Your task to perform on an android device: Clear the cart on costco. Image 0: 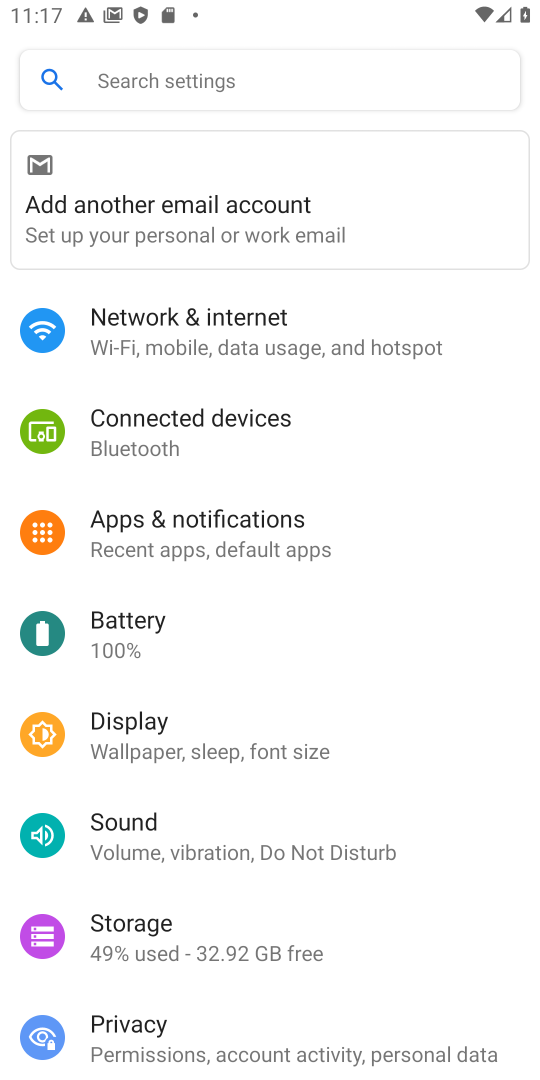
Step 0: press home button
Your task to perform on an android device: Clear the cart on costco. Image 1: 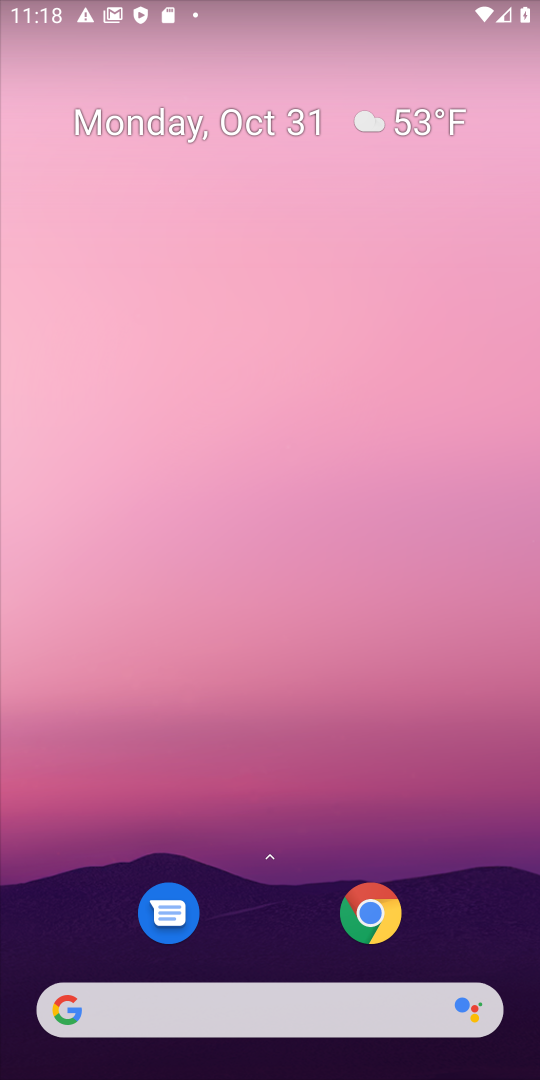
Step 1: click (334, 1028)
Your task to perform on an android device: Clear the cart on costco. Image 2: 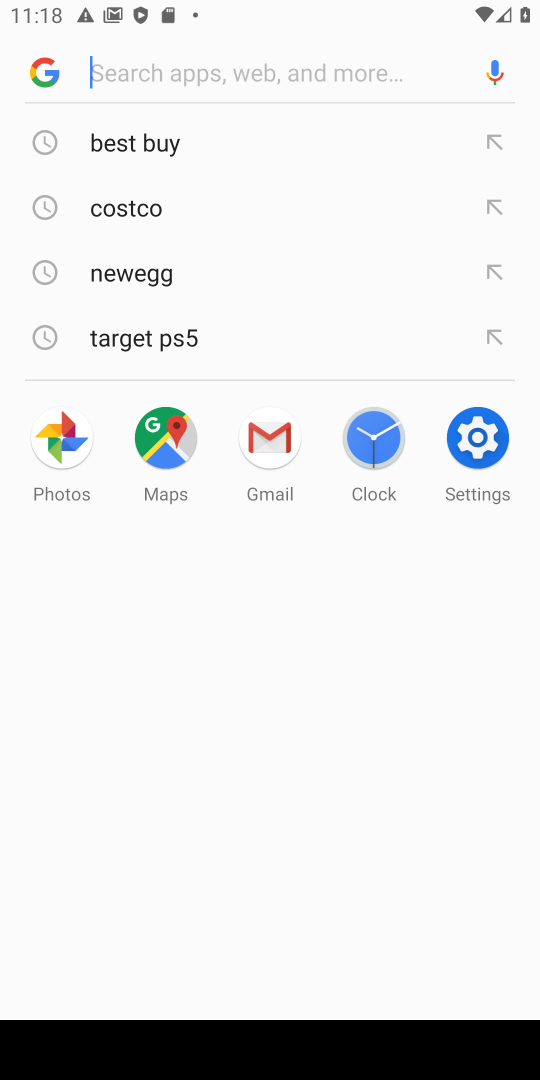
Step 2: type "costco"
Your task to perform on an android device: Clear the cart on costco. Image 3: 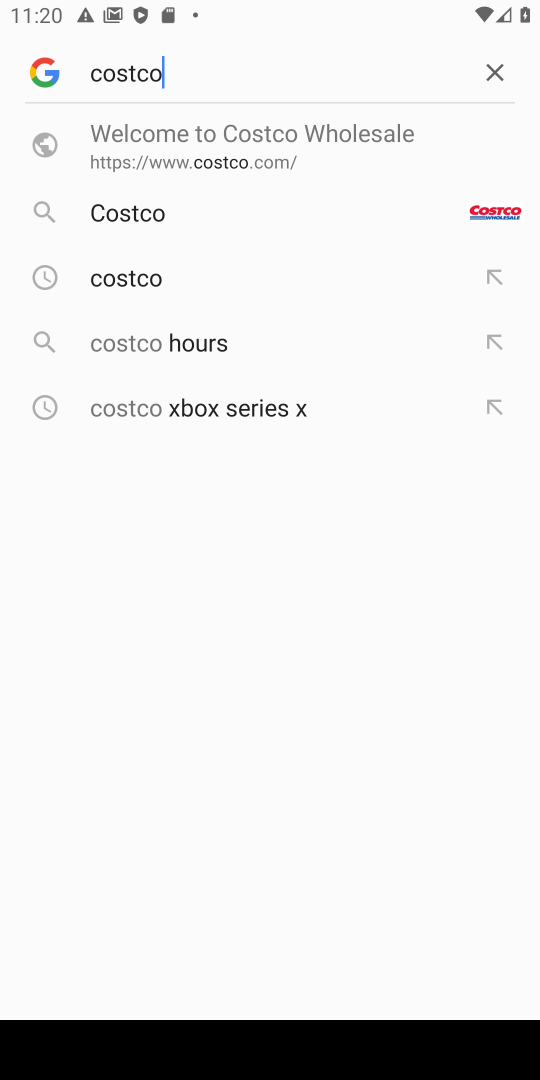
Step 3: click (208, 224)
Your task to perform on an android device: Clear the cart on costco. Image 4: 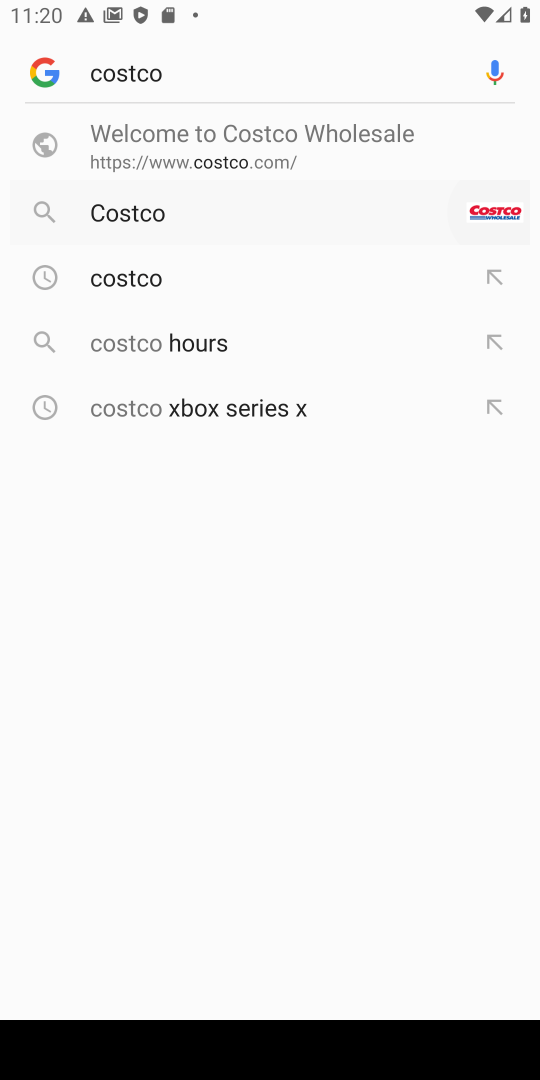
Step 4: task complete